Your task to perform on an android device: Go to Wikipedia Image 0: 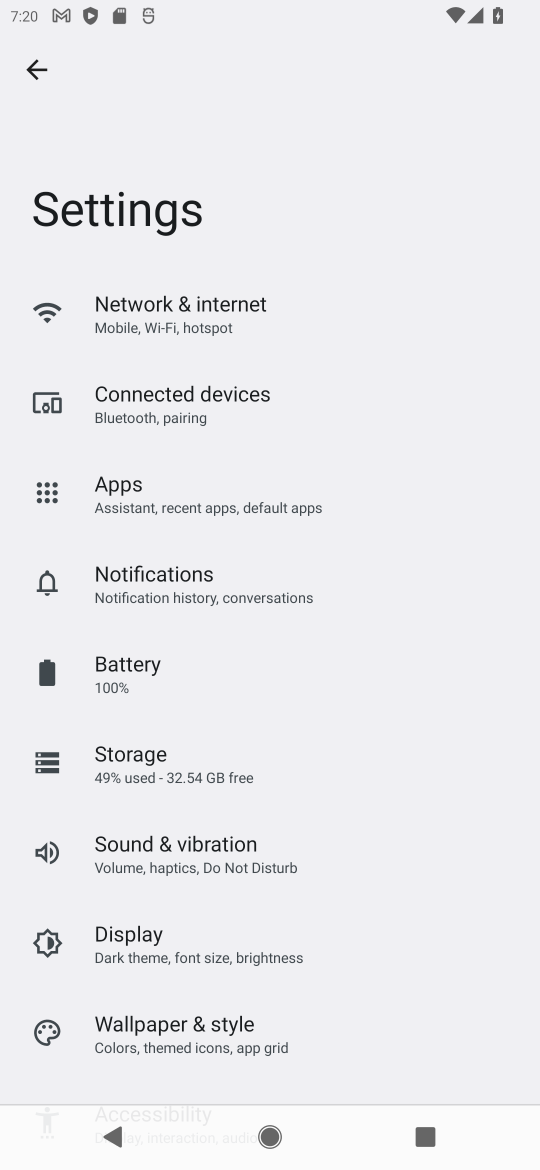
Step 0: press home button
Your task to perform on an android device: Go to Wikipedia Image 1: 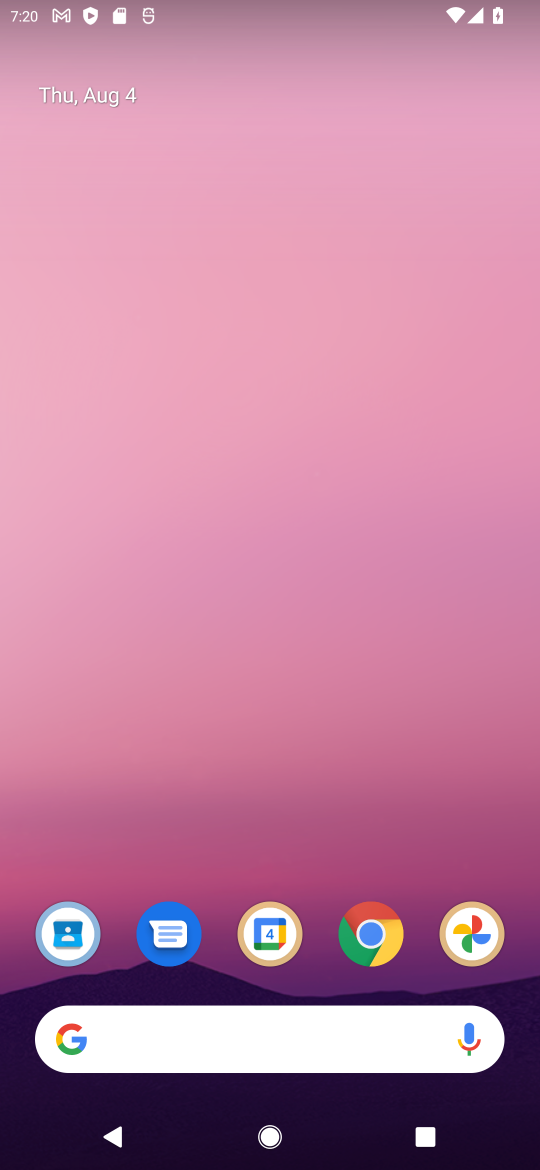
Step 1: click (361, 918)
Your task to perform on an android device: Go to Wikipedia Image 2: 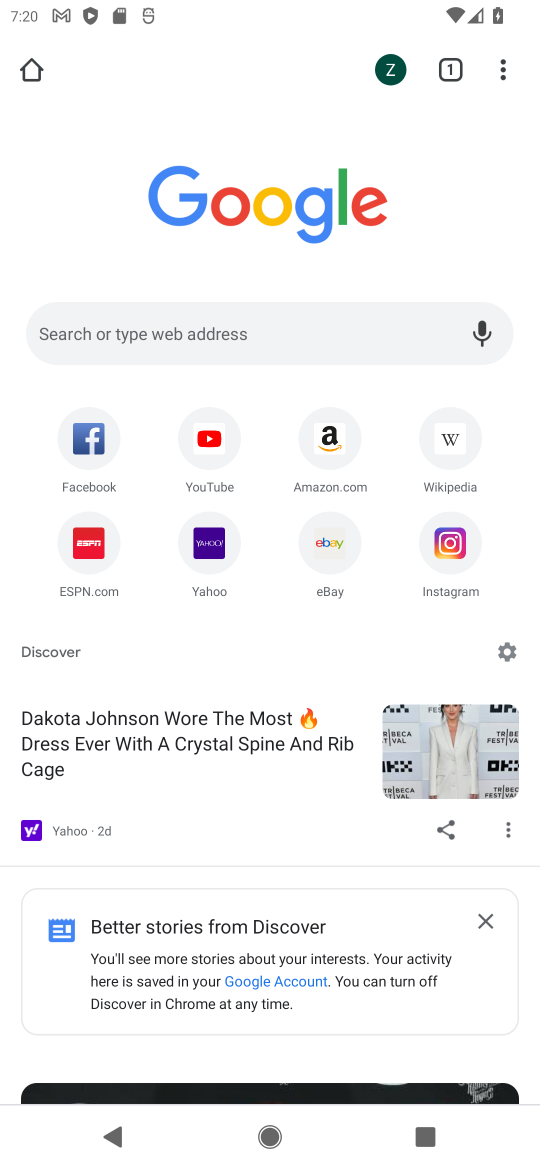
Step 2: click (439, 451)
Your task to perform on an android device: Go to Wikipedia Image 3: 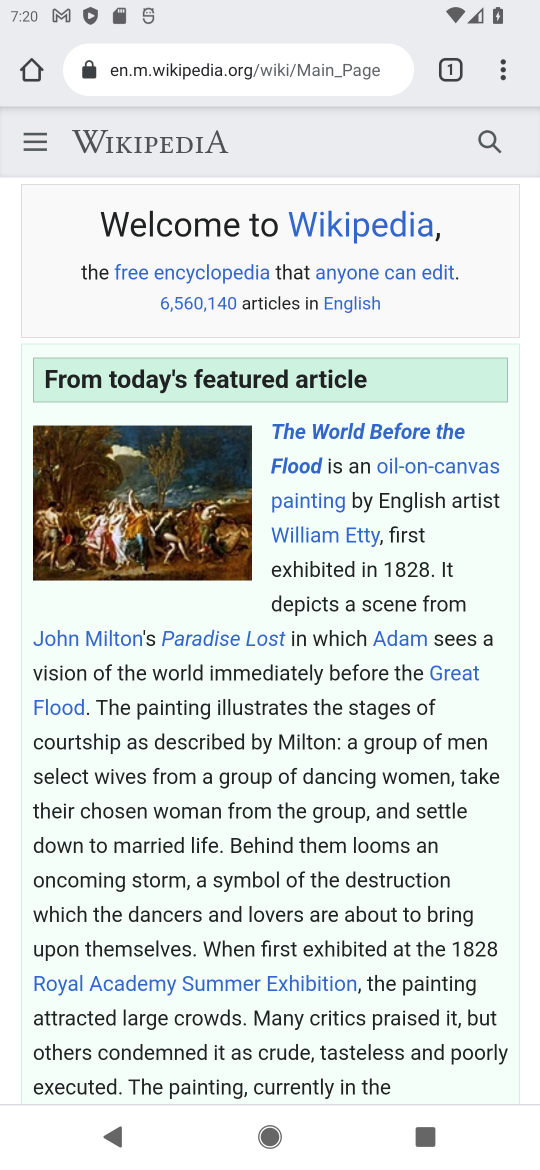
Step 3: task complete